Your task to perform on an android device: find snoozed emails in the gmail app Image 0: 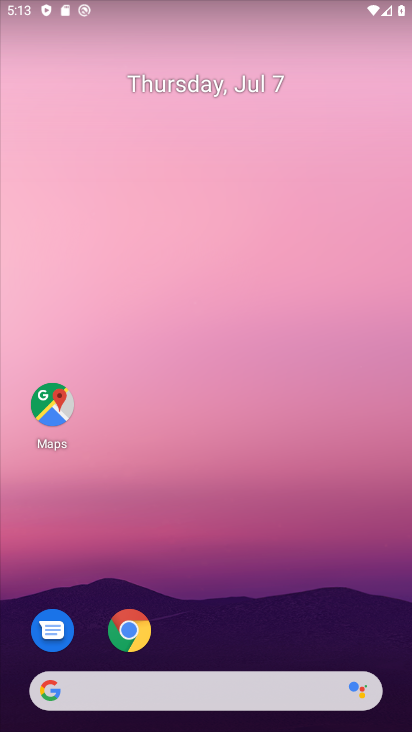
Step 0: drag from (223, 488) to (201, 209)
Your task to perform on an android device: find snoozed emails in the gmail app Image 1: 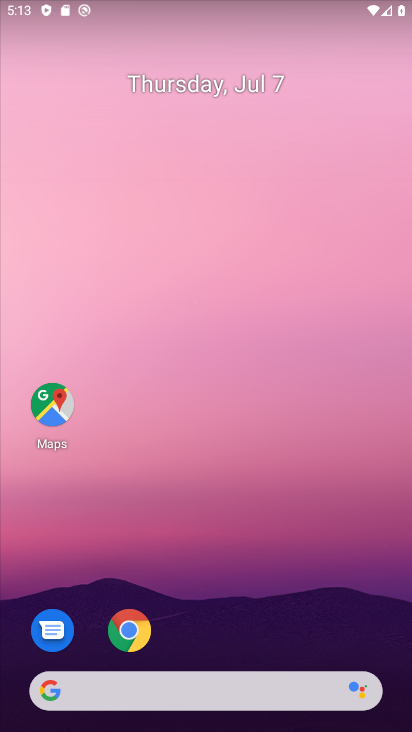
Step 1: drag from (195, 597) to (242, 135)
Your task to perform on an android device: find snoozed emails in the gmail app Image 2: 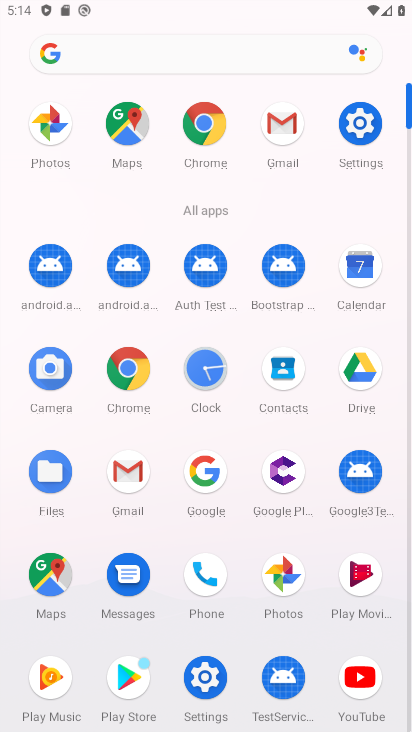
Step 2: click (283, 144)
Your task to perform on an android device: find snoozed emails in the gmail app Image 3: 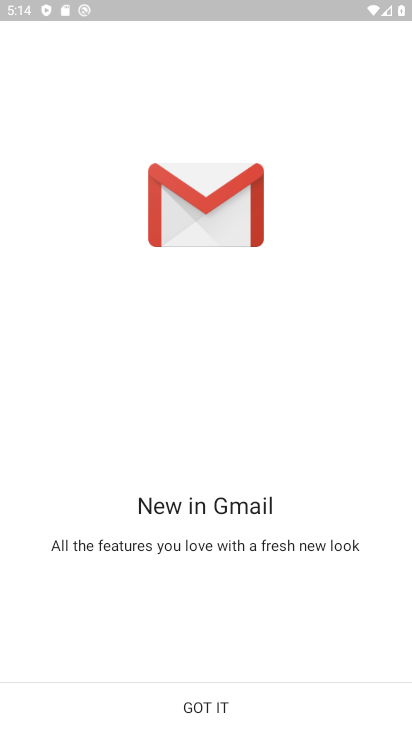
Step 3: click (178, 713)
Your task to perform on an android device: find snoozed emails in the gmail app Image 4: 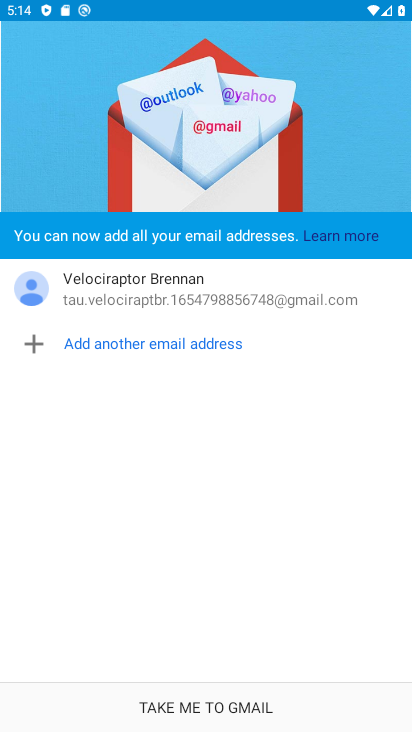
Step 4: click (178, 713)
Your task to perform on an android device: find snoozed emails in the gmail app Image 5: 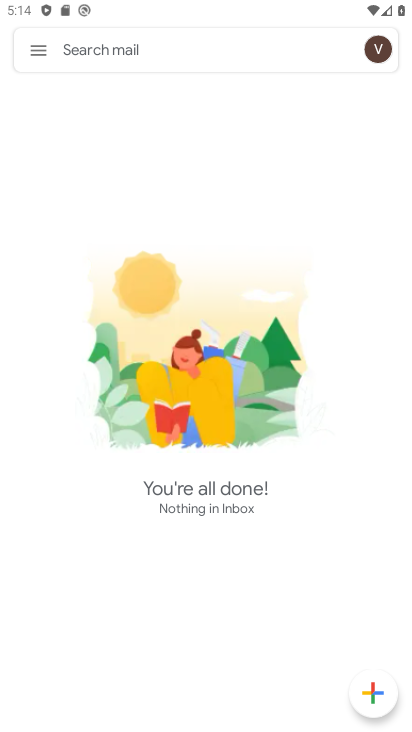
Step 5: click (38, 48)
Your task to perform on an android device: find snoozed emails in the gmail app Image 6: 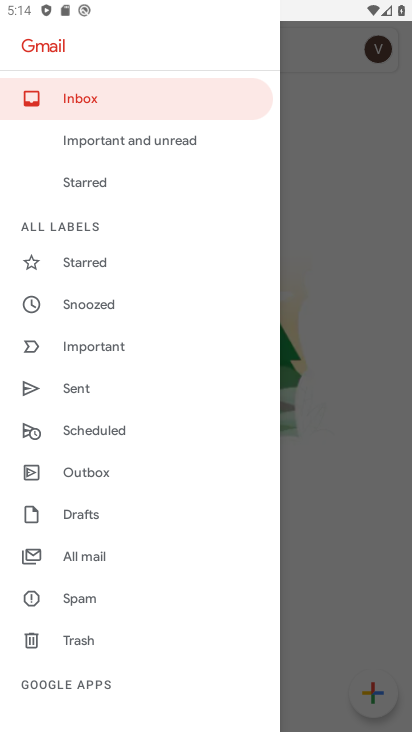
Step 6: click (89, 312)
Your task to perform on an android device: find snoozed emails in the gmail app Image 7: 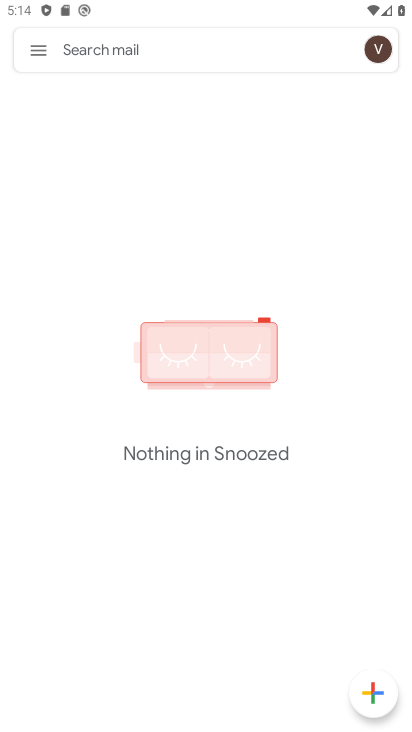
Step 7: task complete